Your task to perform on an android device: choose inbox layout in the gmail app Image 0: 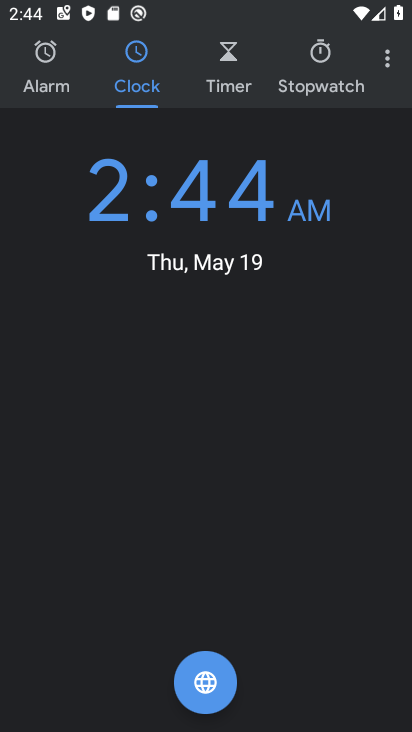
Step 0: press home button
Your task to perform on an android device: choose inbox layout in the gmail app Image 1: 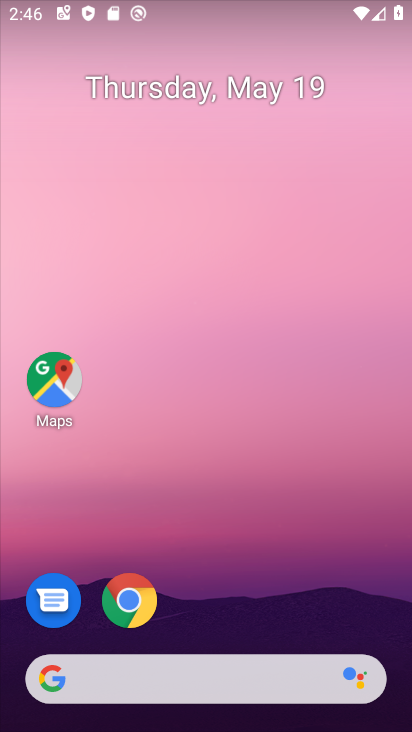
Step 1: drag from (368, 405) to (354, 269)
Your task to perform on an android device: choose inbox layout in the gmail app Image 2: 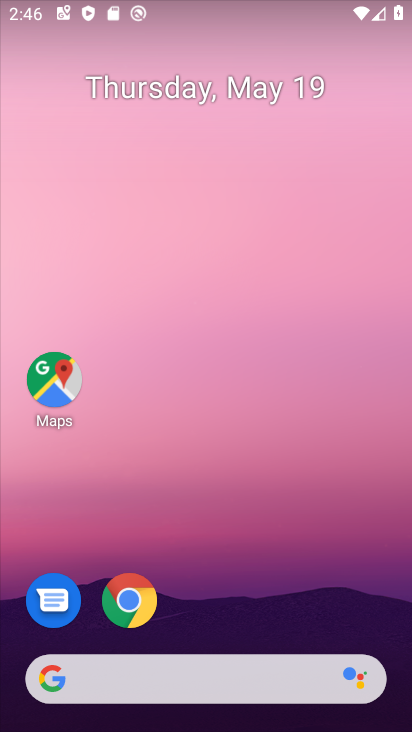
Step 2: drag from (390, 671) to (378, 316)
Your task to perform on an android device: choose inbox layout in the gmail app Image 3: 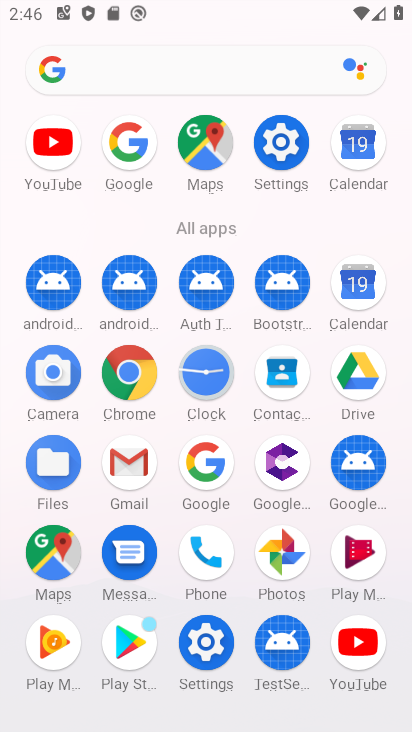
Step 3: click (140, 473)
Your task to perform on an android device: choose inbox layout in the gmail app Image 4: 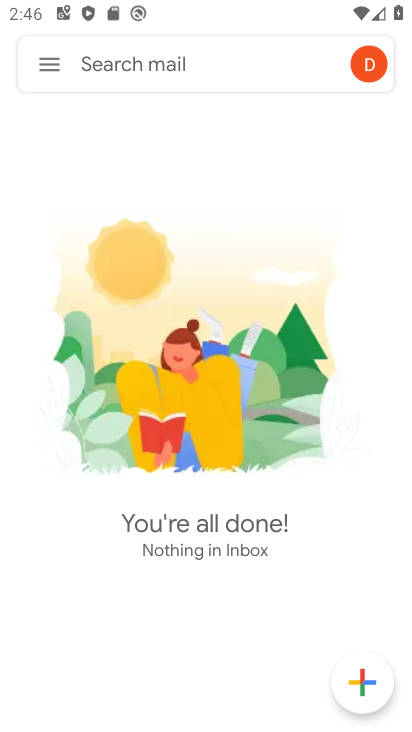
Step 4: click (52, 68)
Your task to perform on an android device: choose inbox layout in the gmail app Image 5: 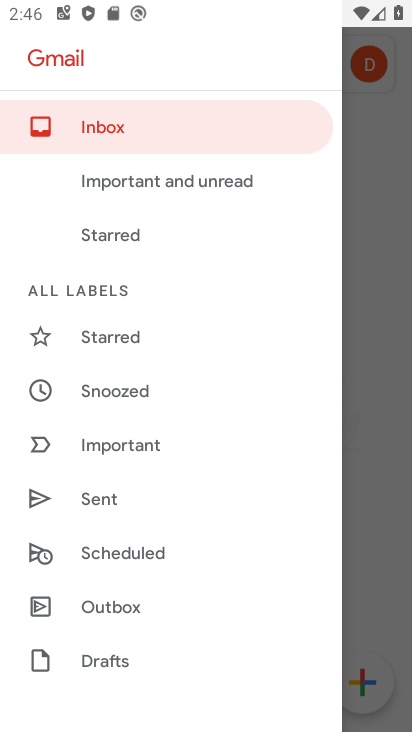
Step 5: click (104, 128)
Your task to perform on an android device: choose inbox layout in the gmail app Image 6: 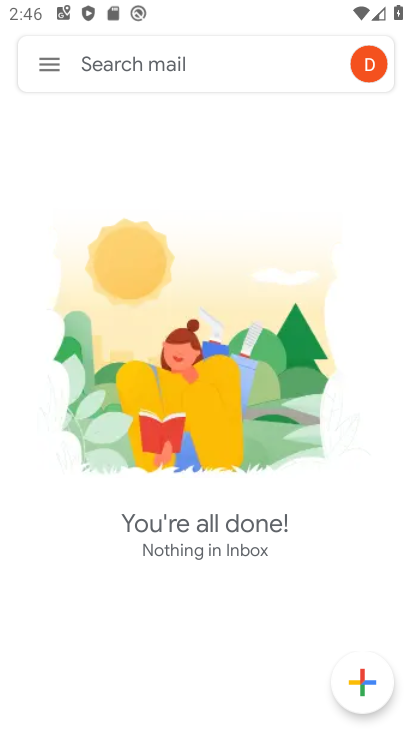
Step 6: click (49, 65)
Your task to perform on an android device: choose inbox layout in the gmail app Image 7: 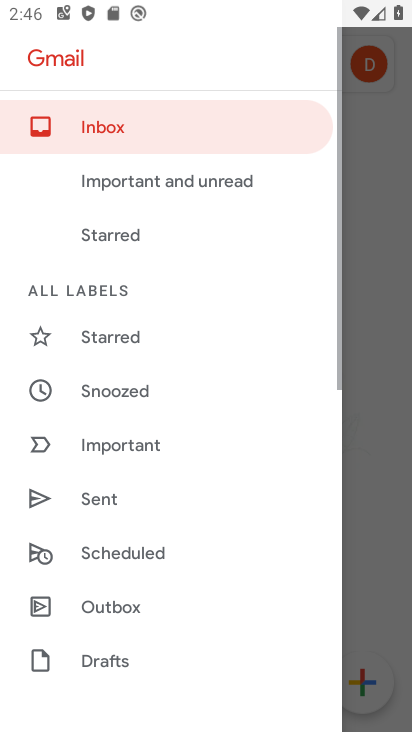
Step 7: drag from (234, 627) to (240, 229)
Your task to perform on an android device: choose inbox layout in the gmail app Image 8: 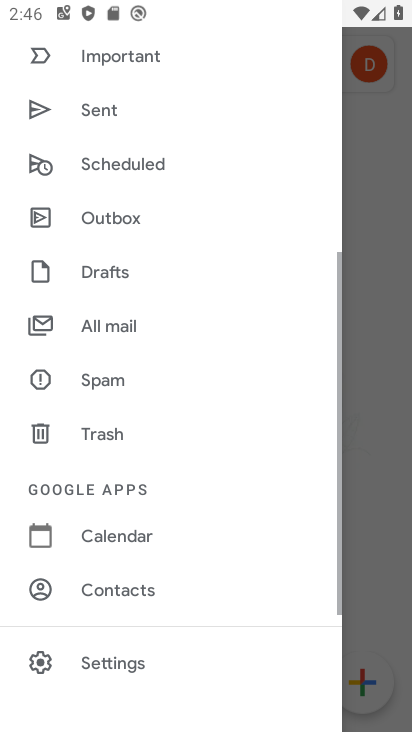
Step 8: drag from (226, 637) to (201, 413)
Your task to perform on an android device: choose inbox layout in the gmail app Image 9: 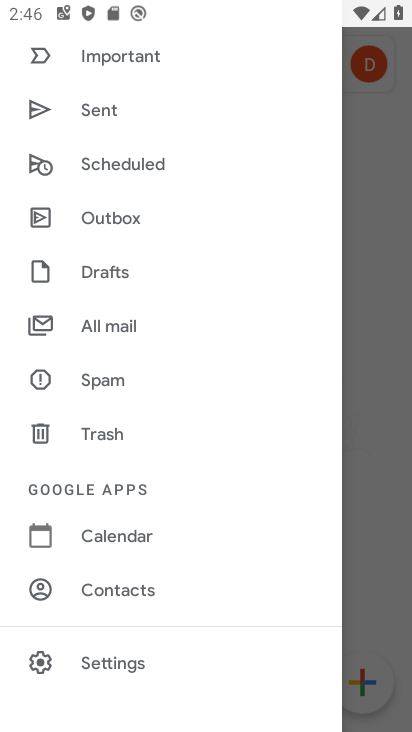
Step 9: click (86, 661)
Your task to perform on an android device: choose inbox layout in the gmail app Image 10: 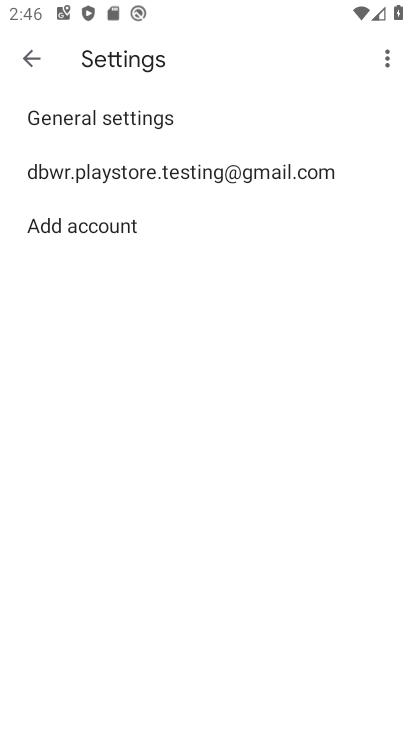
Step 10: click (109, 171)
Your task to perform on an android device: choose inbox layout in the gmail app Image 11: 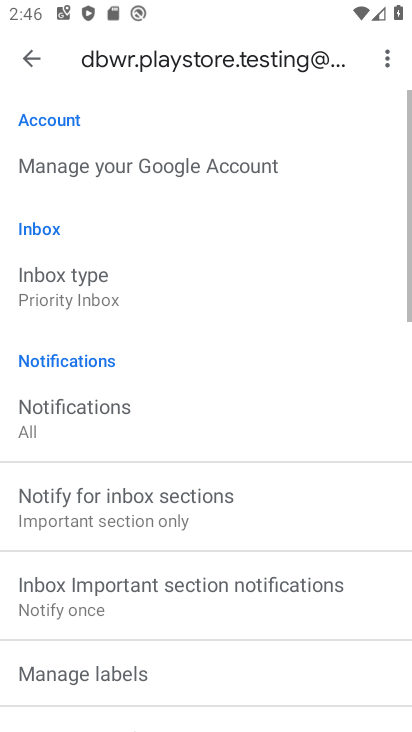
Step 11: click (78, 286)
Your task to perform on an android device: choose inbox layout in the gmail app Image 12: 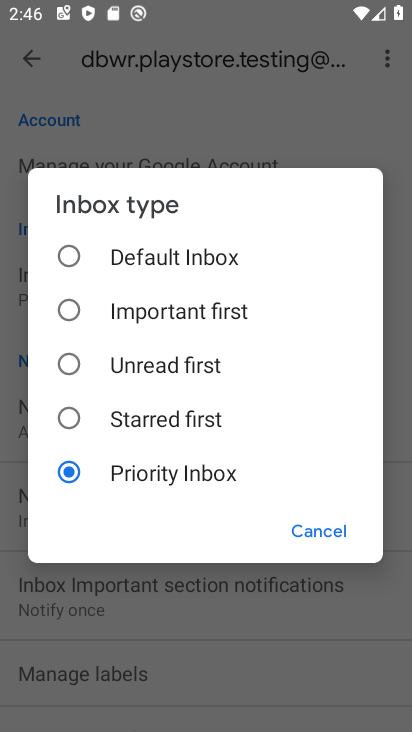
Step 12: click (68, 412)
Your task to perform on an android device: choose inbox layout in the gmail app Image 13: 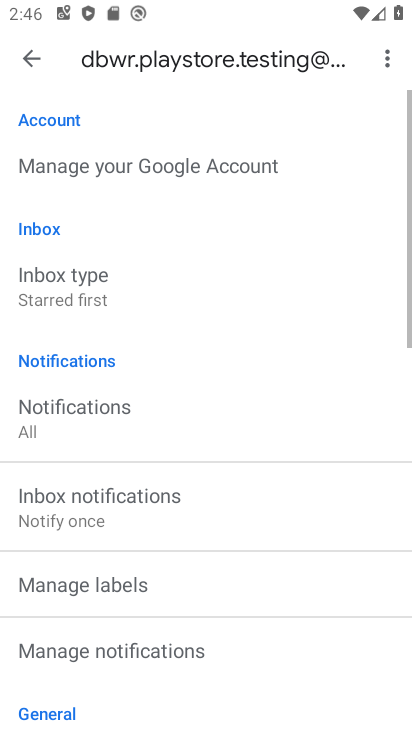
Step 13: task complete